Your task to perform on an android device: Go to calendar. Show me events next week Image 0: 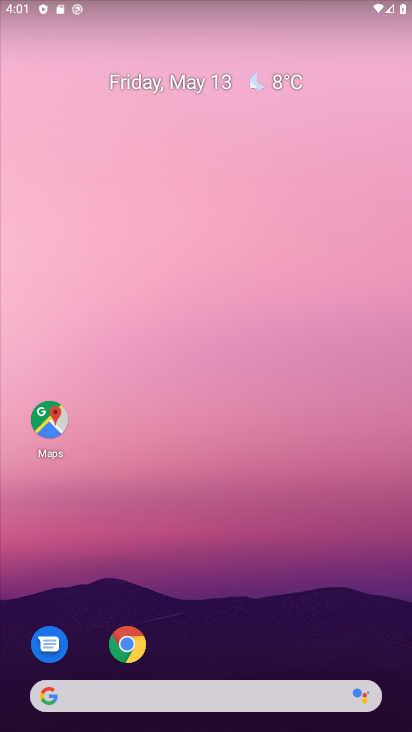
Step 0: drag from (337, 638) to (310, 154)
Your task to perform on an android device: Go to calendar. Show me events next week Image 1: 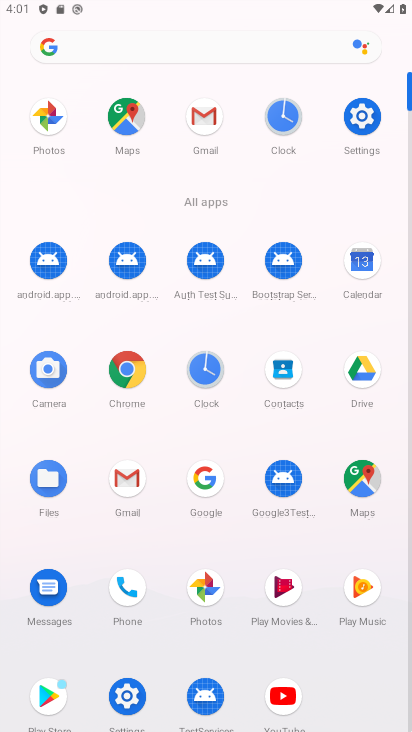
Step 1: click (354, 279)
Your task to perform on an android device: Go to calendar. Show me events next week Image 2: 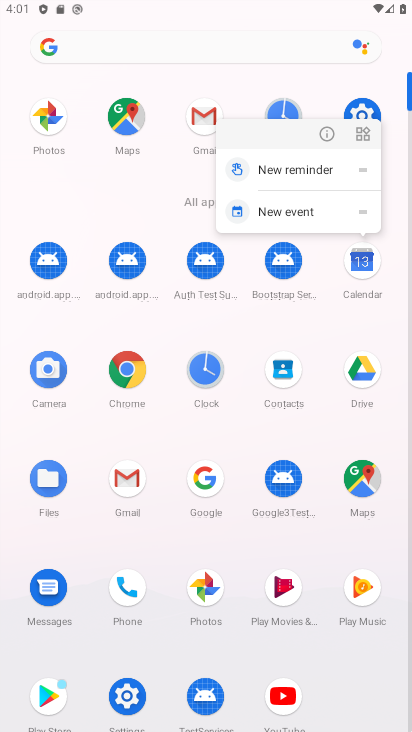
Step 2: click (365, 258)
Your task to perform on an android device: Go to calendar. Show me events next week Image 3: 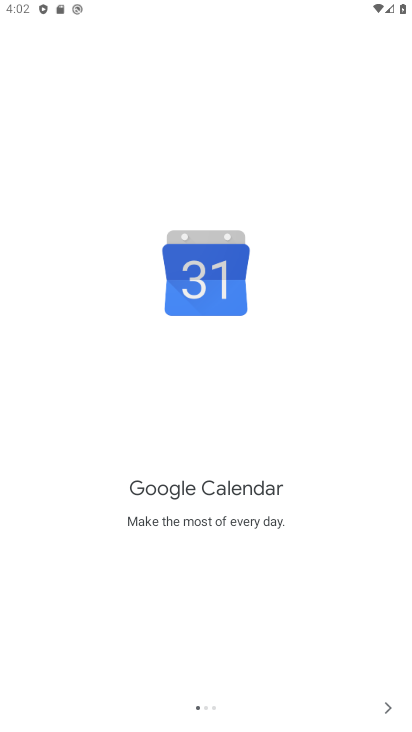
Step 3: click (398, 714)
Your task to perform on an android device: Go to calendar. Show me events next week Image 4: 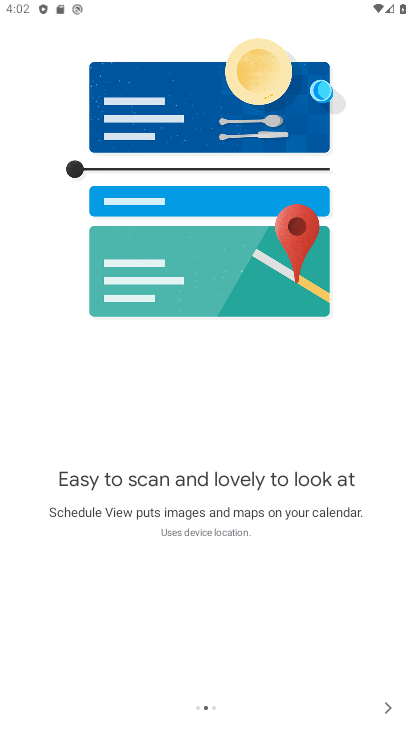
Step 4: click (395, 711)
Your task to perform on an android device: Go to calendar. Show me events next week Image 5: 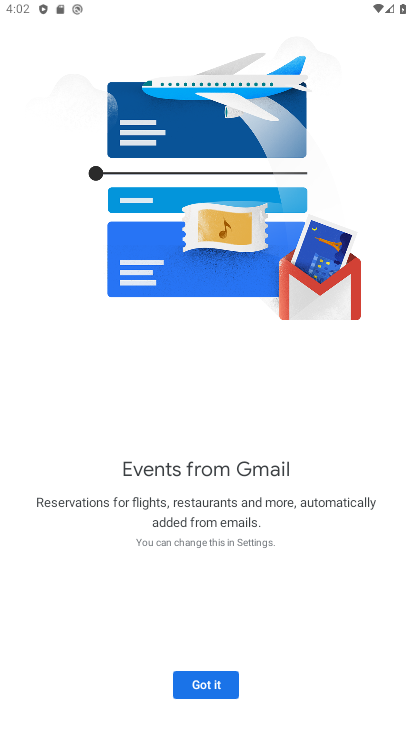
Step 5: click (212, 697)
Your task to perform on an android device: Go to calendar. Show me events next week Image 6: 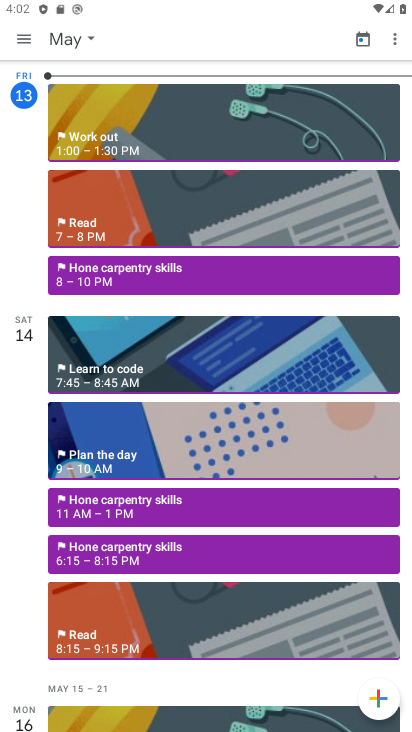
Step 6: click (22, 33)
Your task to perform on an android device: Go to calendar. Show me events next week Image 7: 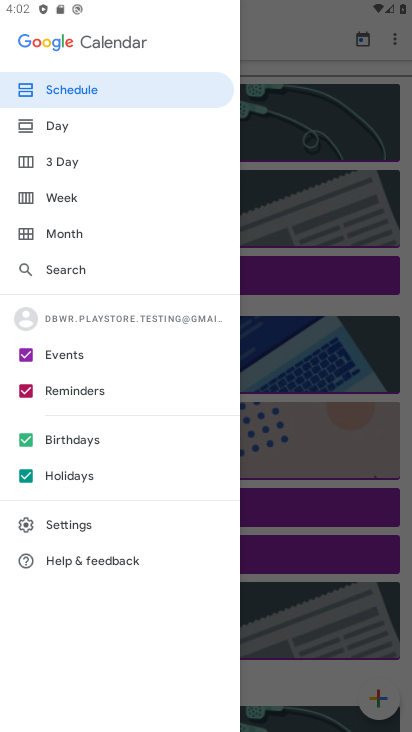
Step 7: click (89, 198)
Your task to perform on an android device: Go to calendar. Show me events next week Image 8: 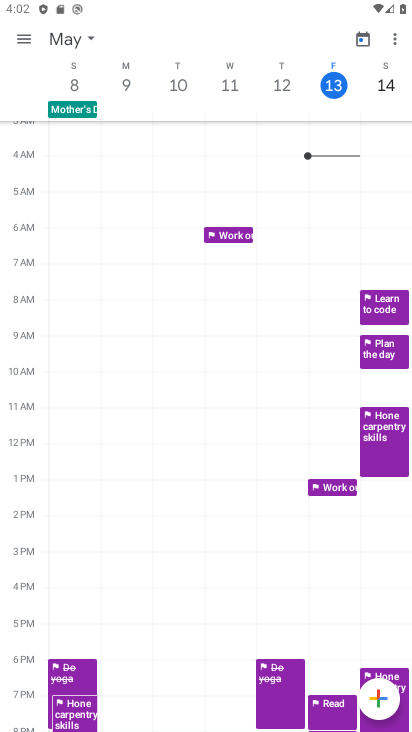
Step 8: task complete